Your task to perform on an android device: turn on wifi Image 0: 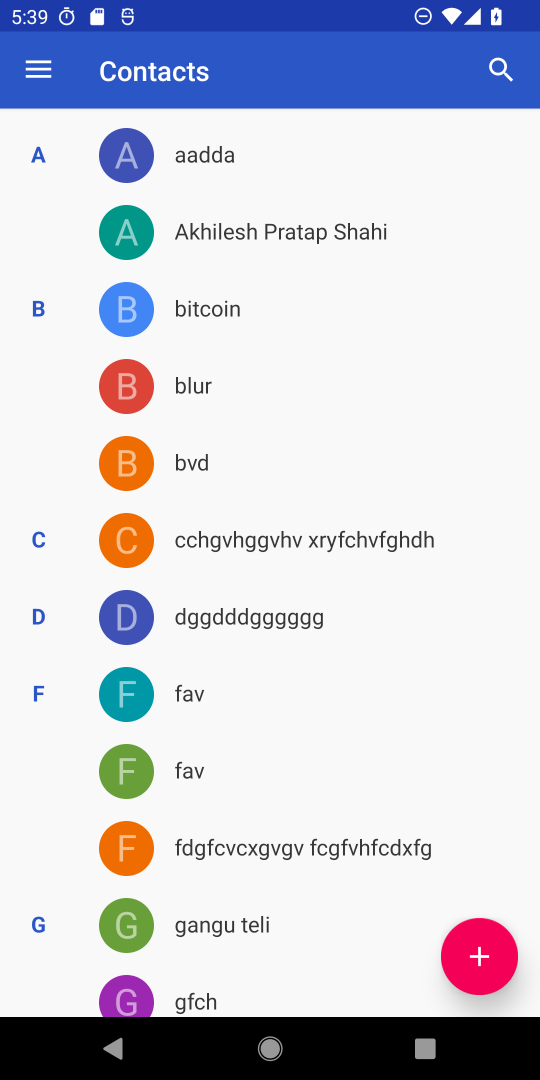
Step 0: press home button
Your task to perform on an android device: turn on wifi Image 1: 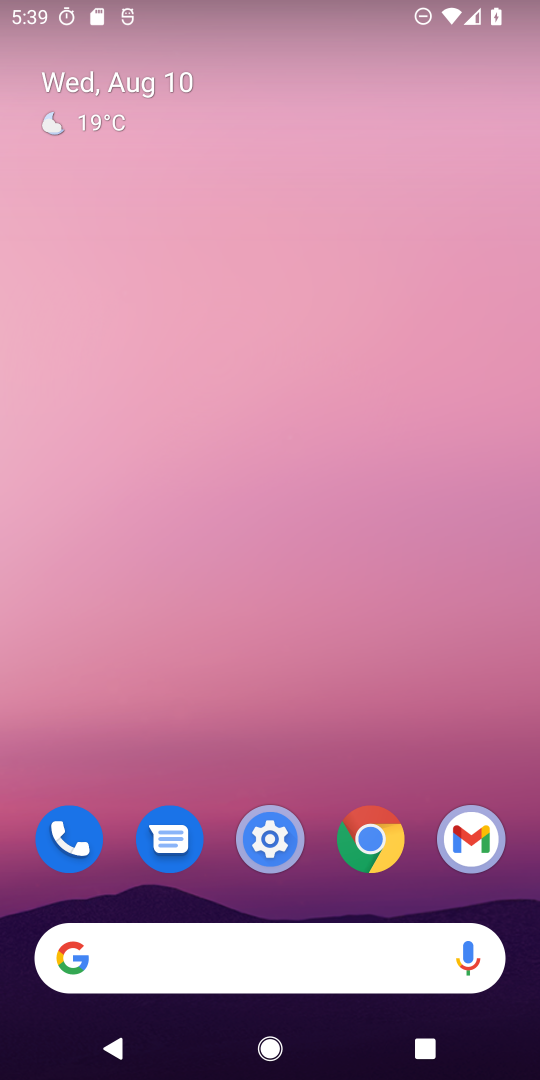
Step 1: click (264, 849)
Your task to perform on an android device: turn on wifi Image 2: 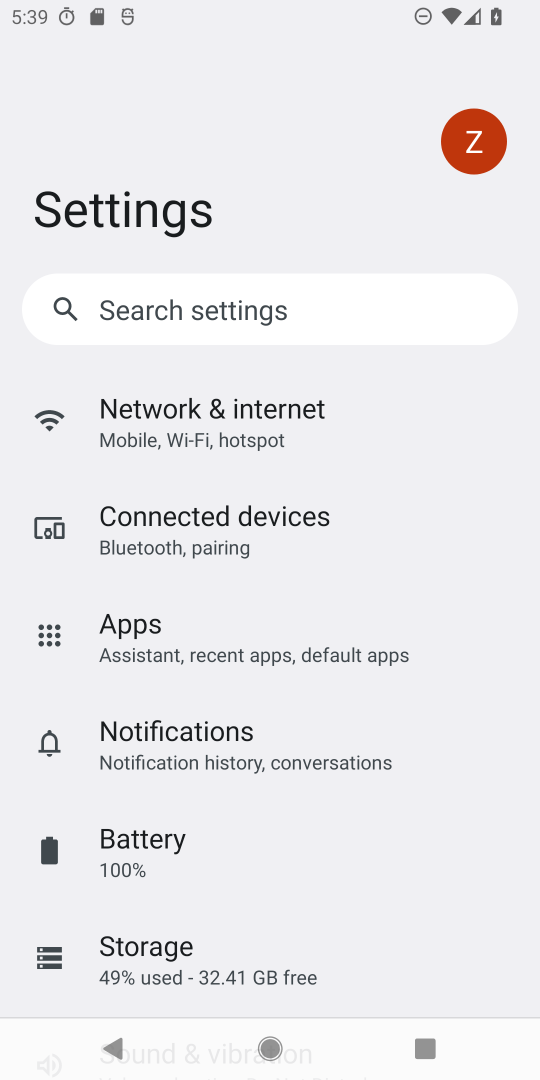
Step 2: click (169, 421)
Your task to perform on an android device: turn on wifi Image 3: 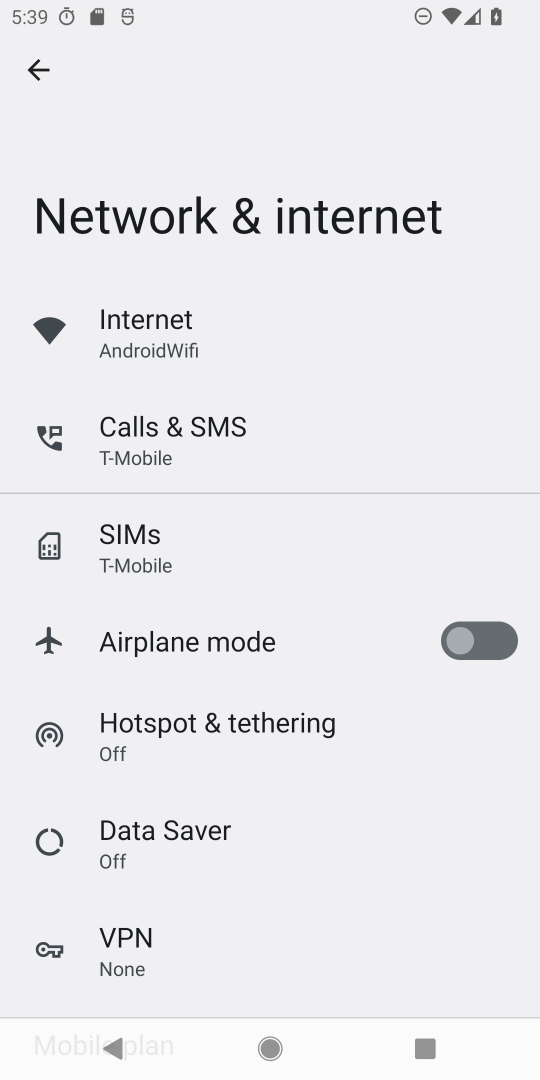
Step 3: click (147, 342)
Your task to perform on an android device: turn on wifi Image 4: 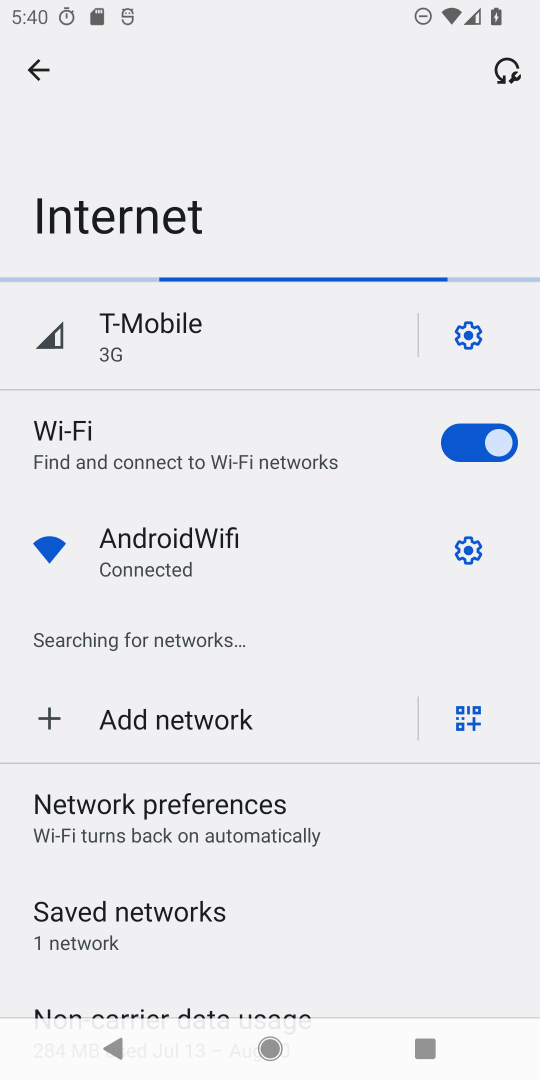
Step 4: task complete